Your task to perform on an android device: What's on my calendar tomorrow? Image 0: 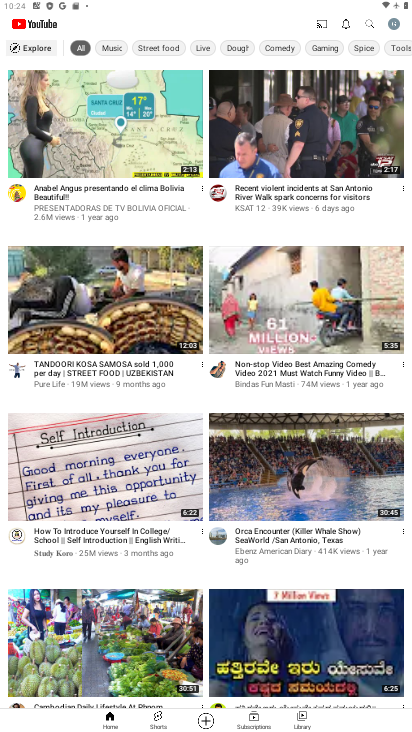
Step 0: press home button
Your task to perform on an android device: What's on my calendar tomorrow? Image 1: 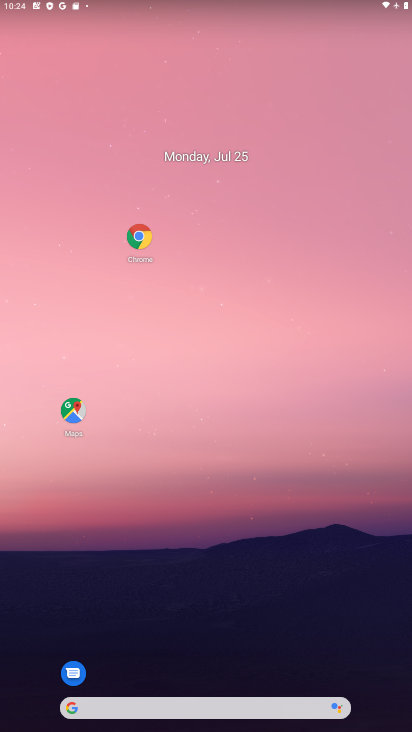
Step 1: drag from (266, 680) to (296, 28)
Your task to perform on an android device: What's on my calendar tomorrow? Image 2: 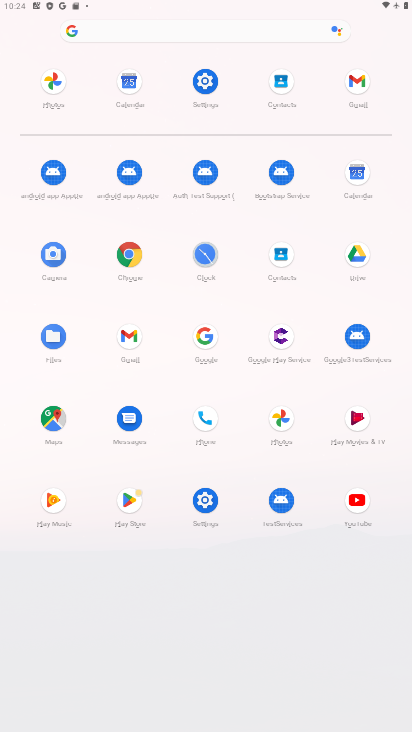
Step 2: click (125, 99)
Your task to perform on an android device: What's on my calendar tomorrow? Image 3: 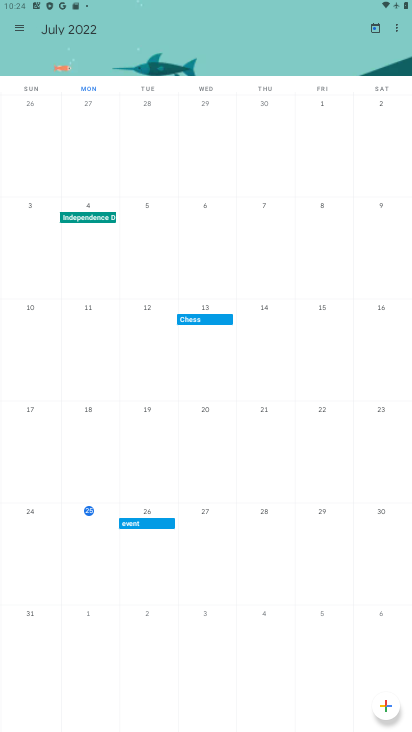
Step 3: task complete